Your task to perform on an android device: clear history in the chrome app Image 0: 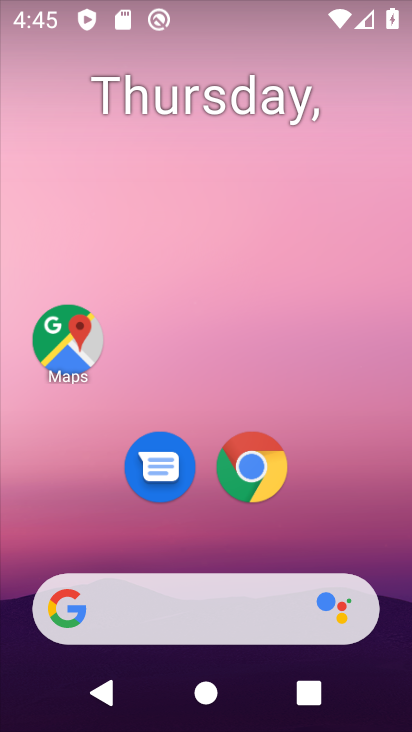
Step 0: drag from (392, 541) to (272, 120)
Your task to perform on an android device: clear history in the chrome app Image 1: 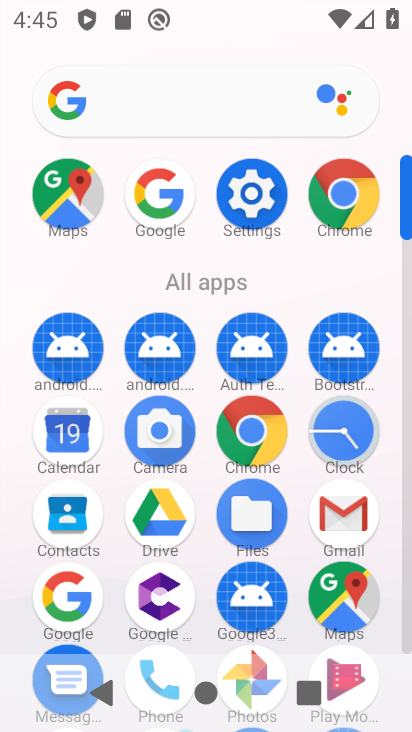
Step 1: click (326, 192)
Your task to perform on an android device: clear history in the chrome app Image 2: 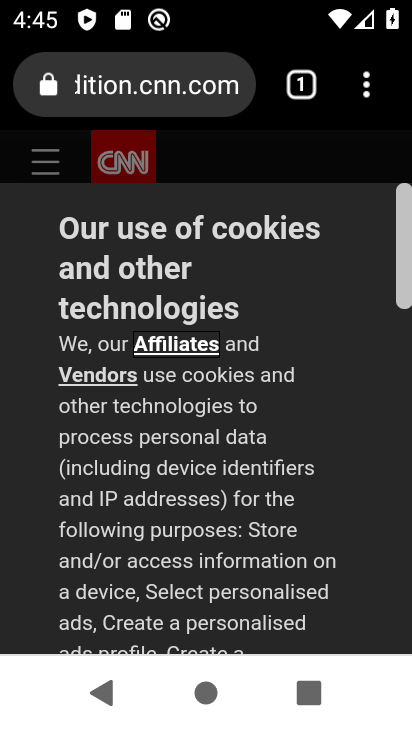
Step 2: click (368, 92)
Your task to perform on an android device: clear history in the chrome app Image 3: 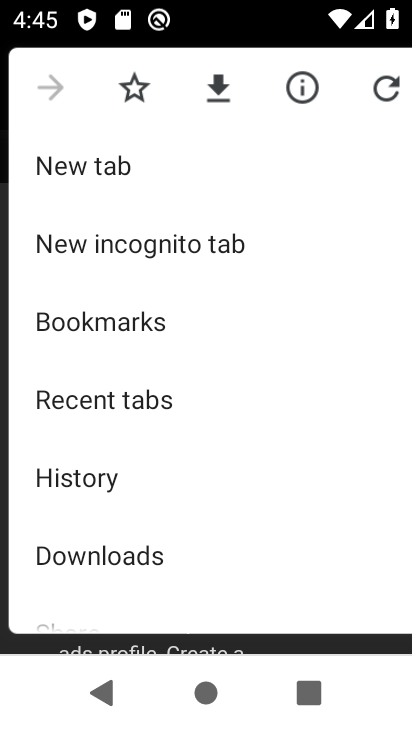
Step 3: click (132, 468)
Your task to perform on an android device: clear history in the chrome app Image 4: 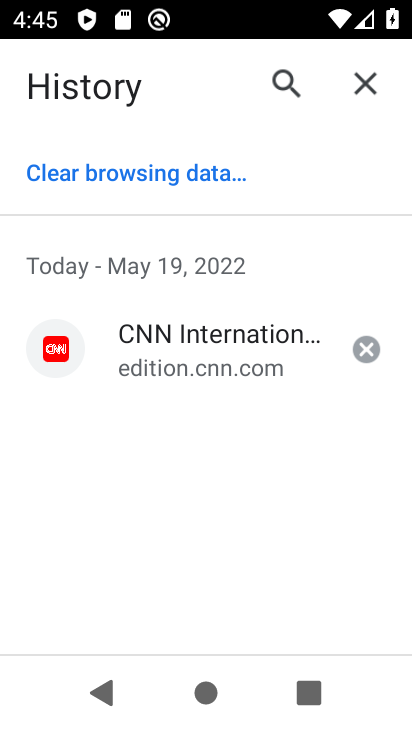
Step 4: click (153, 168)
Your task to perform on an android device: clear history in the chrome app Image 5: 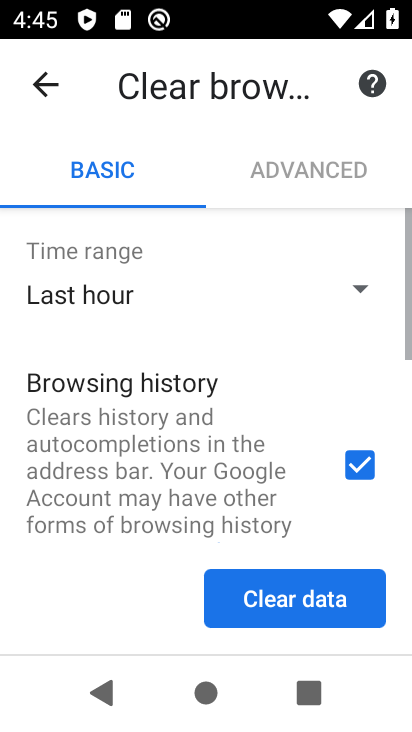
Step 5: click (326, 590)
Your task to perform on an android device: clear history in the chrome app Image 6: 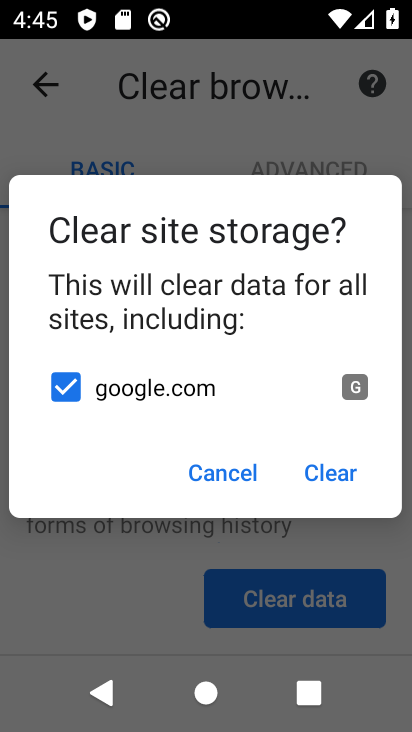
Step 6: click (358, 467)
Your task to perform on an android device: clear history in the chrome app Image 7: 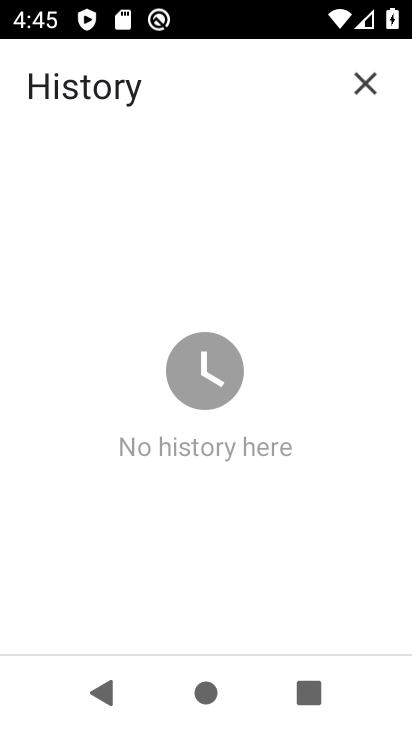
Step 7: task complete